Your task to perform on an android device: Search for vegetarian restaurants on Maps Image 0: 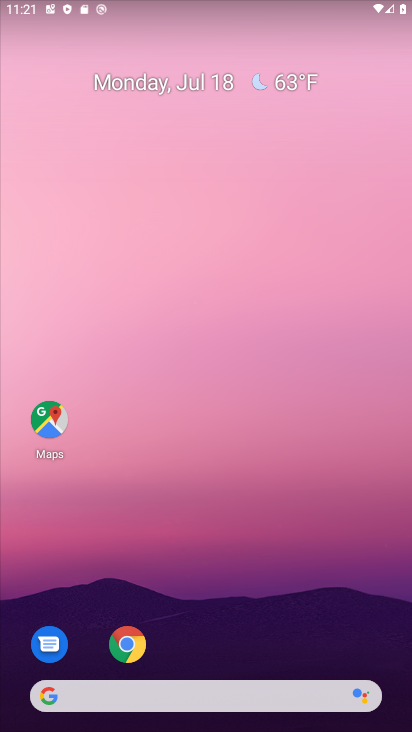
Step 0: drag from (238, 728) to (227, 173)
Your task to perform on an android device: Search for vegetarian restaurants on Maps Image 1: 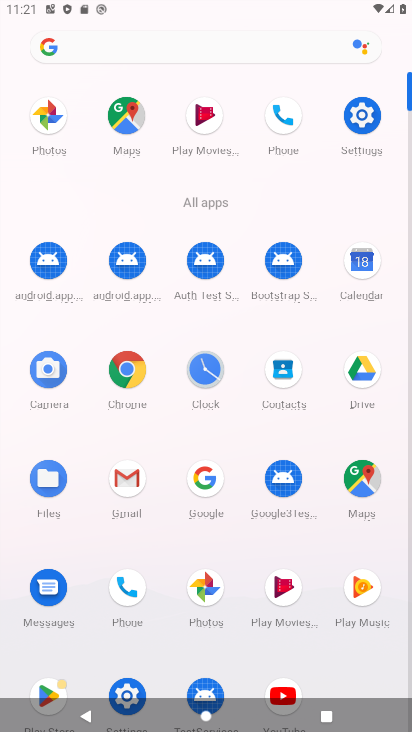
Step 1: click (363, 483)
Your task to perform on an android device: Search for vegetarian restaurants on Maps Image 2: 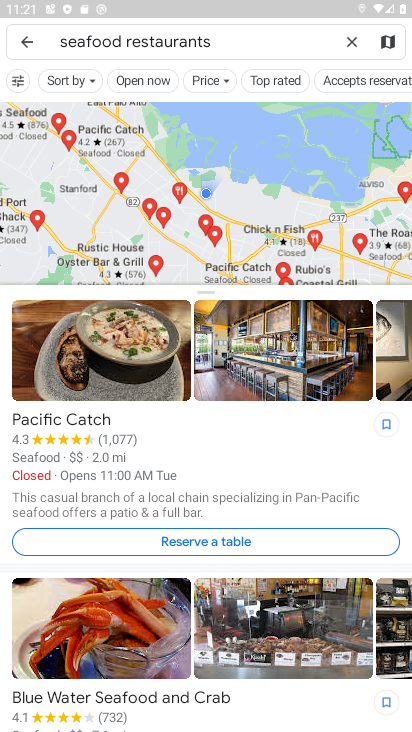
Step 2: click (349, 43)
Your task to perform on an android device: Search for vegetarian restaurants on Maps Image 3: 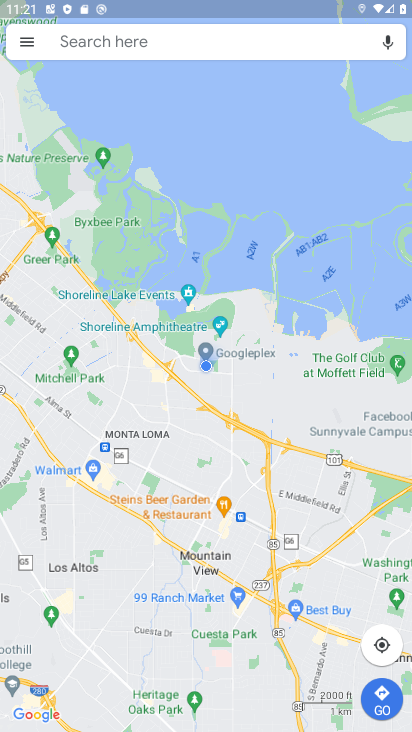
Step 3: click (277, 39)
Your task to perform on an android device: Search for vegetarian restaurants on Maps Image 4: 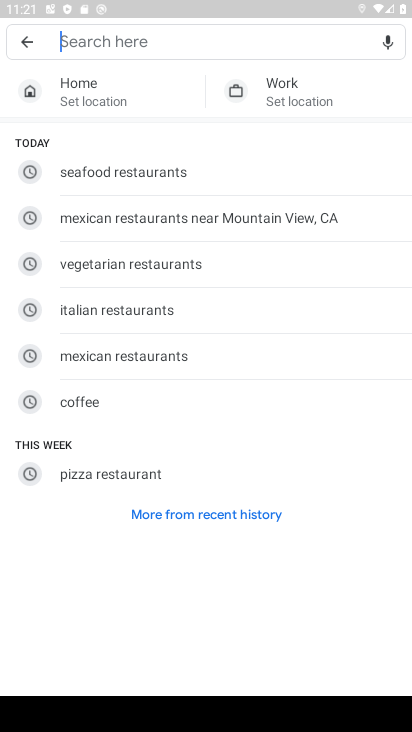
Step 4: type "vegetarian restaurants"
Your task to perform on an android device: Search for vegetarian restaurants on Maps Image 5: 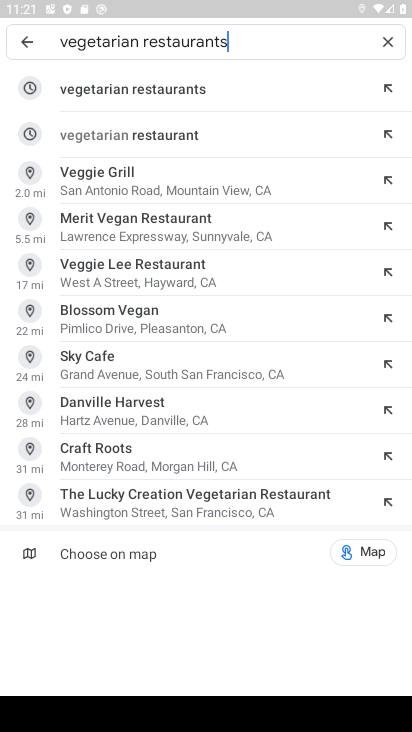
Step 5: click (169, 91)
Your task to perform on an android device: Search for vegetarian restaurants on Maps Image 6: 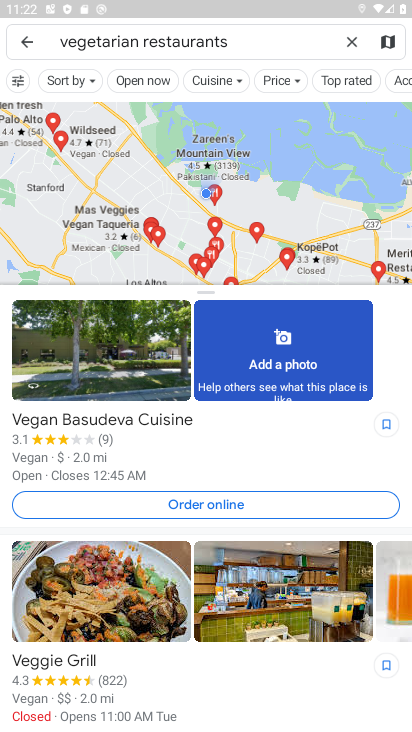
Step 6: task complete